Your task to perform on an android device: Play the latest video from the Wall Street Journal Image 0: 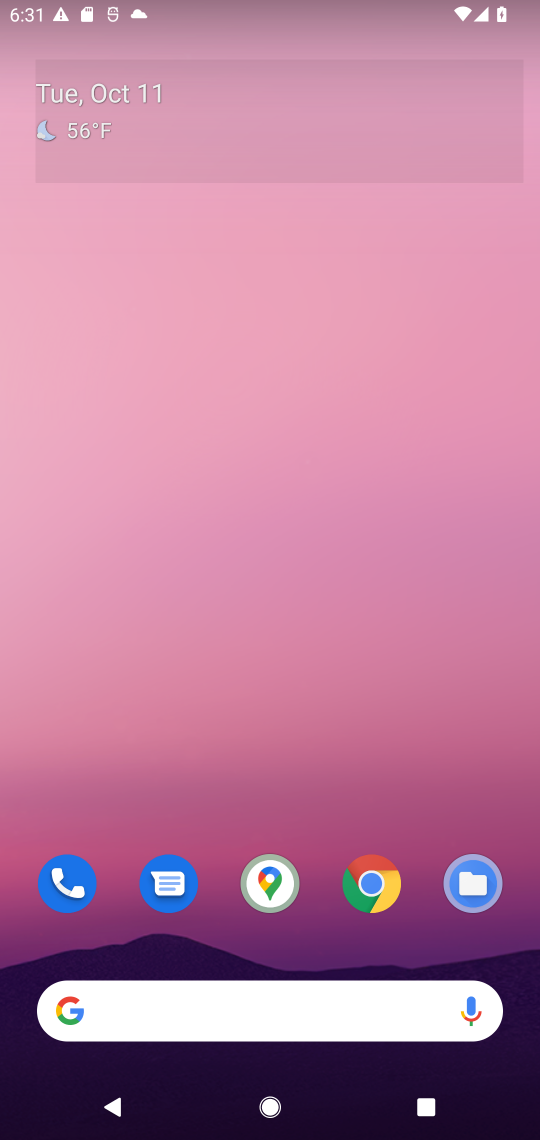
Step 0: drag from (322, 955) to (326, 11)
Your task to perform on an android device: Play the latest video from the Wall Street Journal Image 1: 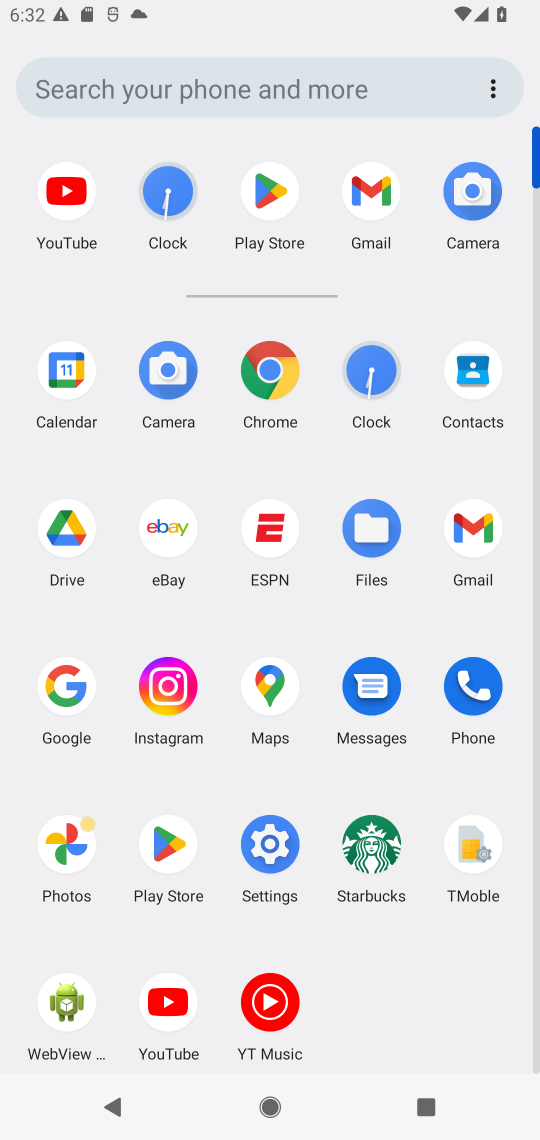
Step 1: click (158, 998)
Your task to perform on an android device: Play the latest video from the Wall Street Journal Image 2: 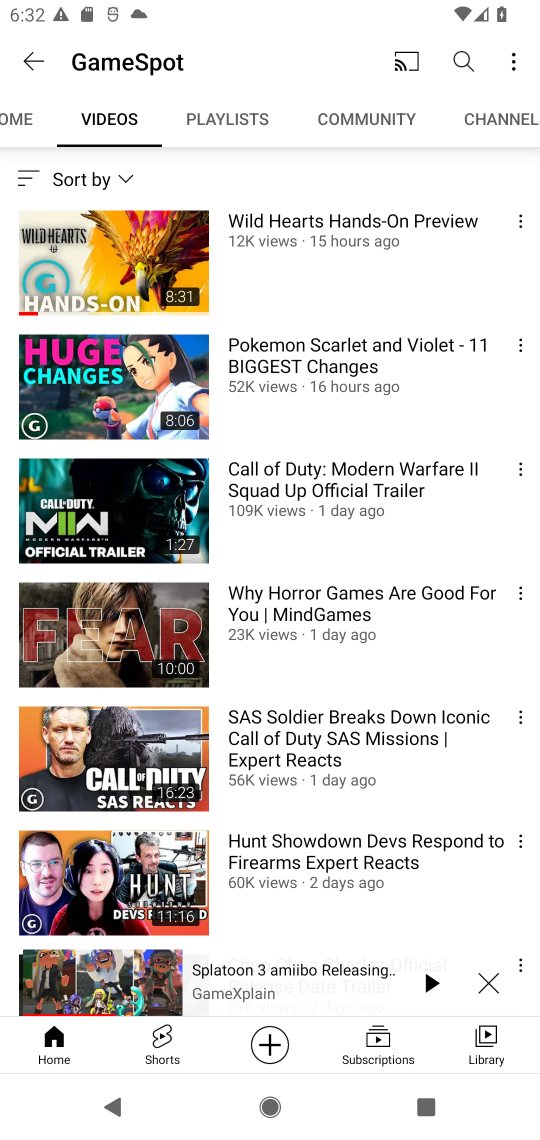
Step 2: click (306, 58)
Your task to perform on an android device: Play the latest video from the Wall Street Journal Image 3: 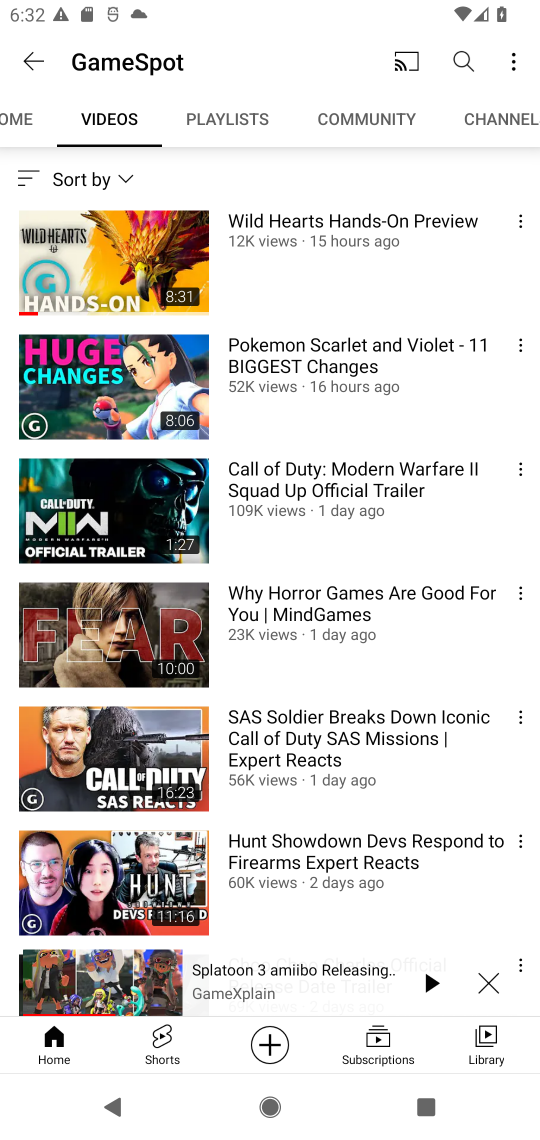
Step 3: click (260, 59)
Your task to perform on an android device: Play the latest video from the Wall Street Journal Image 4: 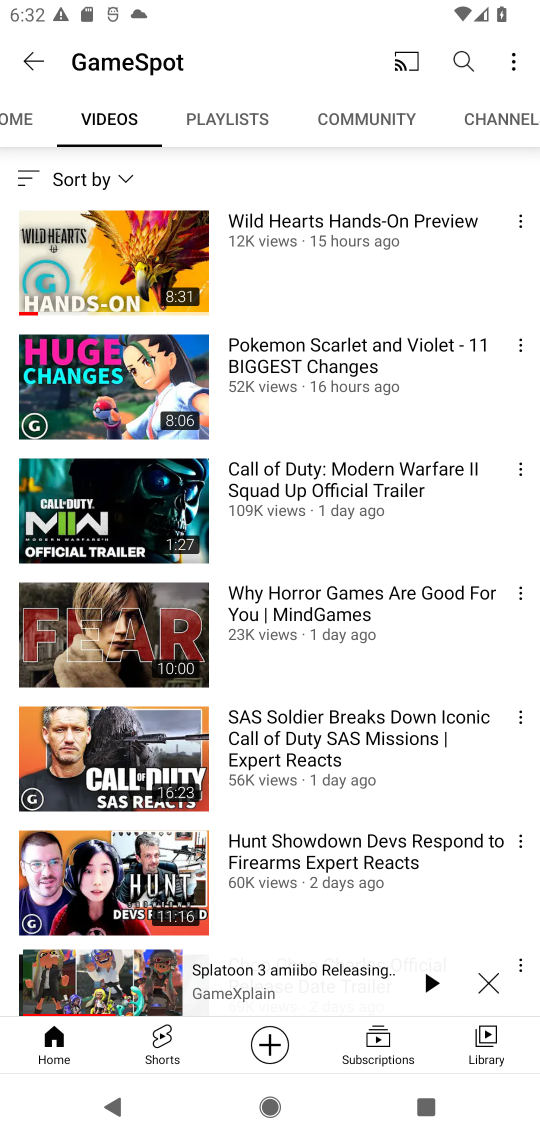
Step 4: press back button
Your task to perform on an android device: Play the latest video from the Wall Street Journal Image 5: 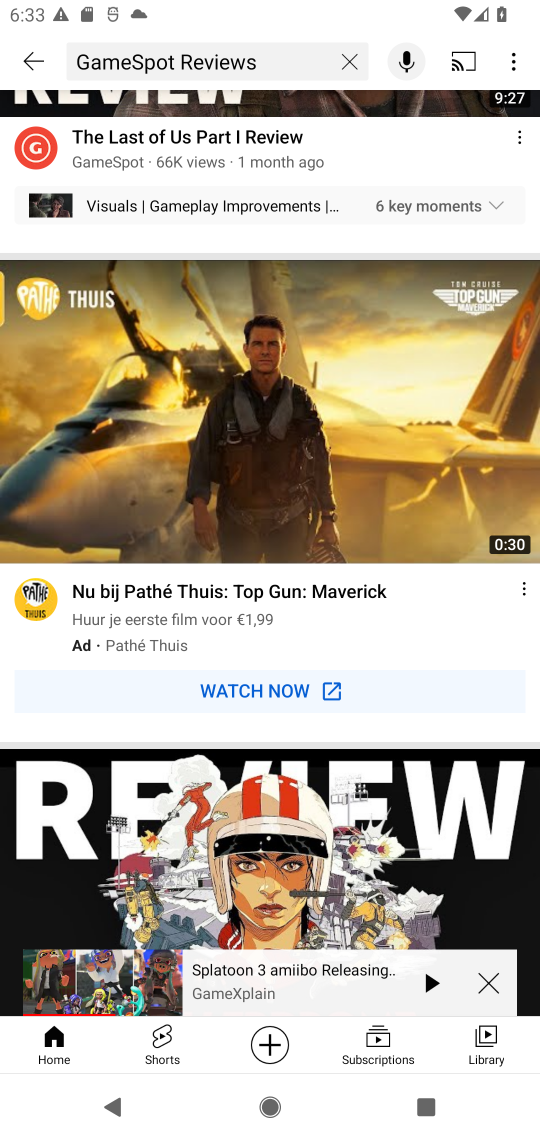
Step 5: click (350, 62)
Your task to perform on an android device: Play the latest video from the Wall Street Journal Image 6: 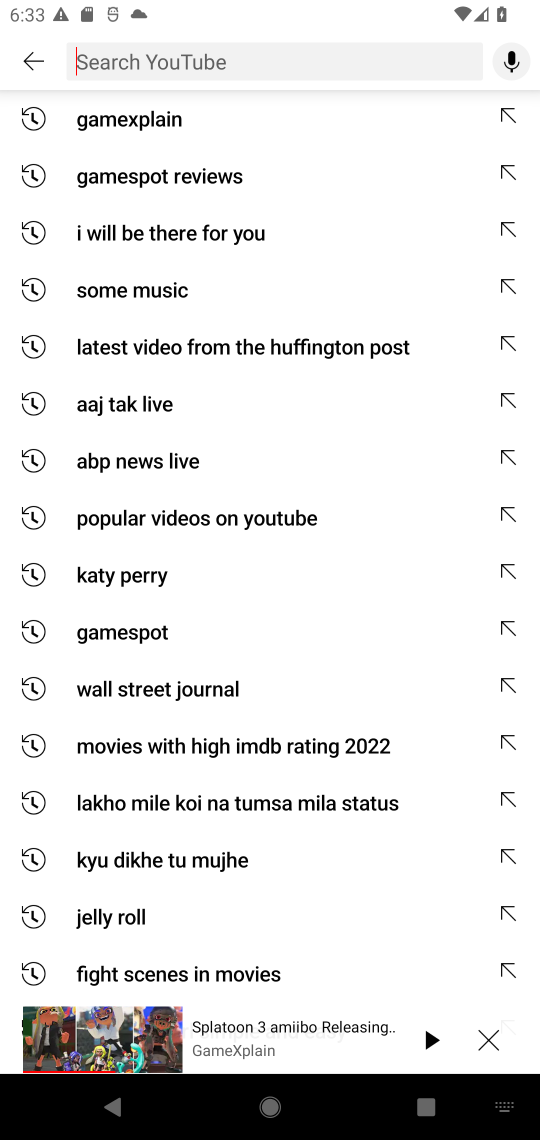
Step 6: type "Wall Street Journal"
Your task to perform on an android device: Play the latest video from the Wall Street Journal Image 7: 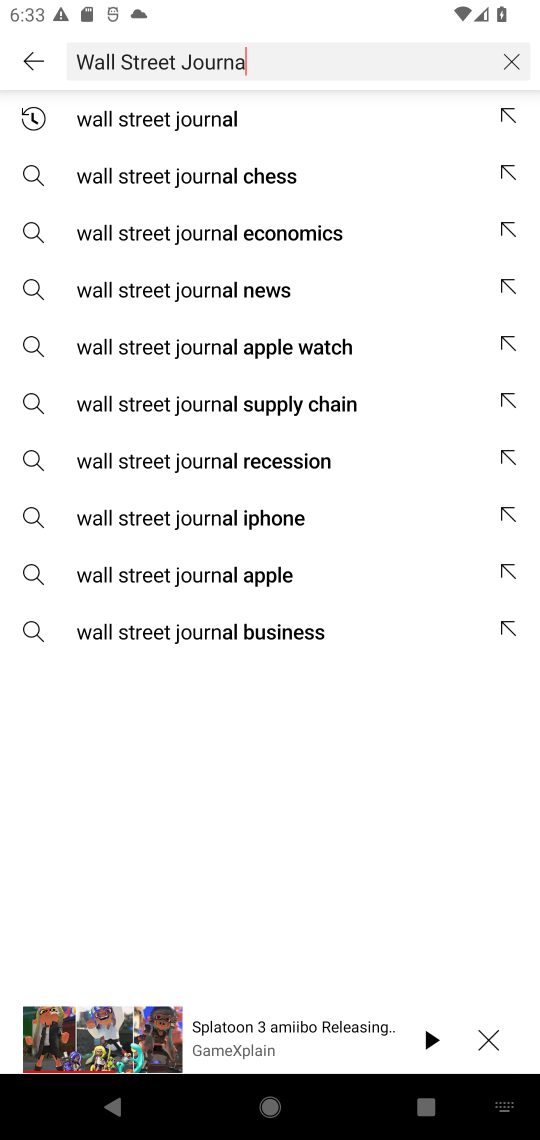
Step 7: press enter
Your task to perform on an android device: Play the latest video from the Wall Street Journal Image 8: 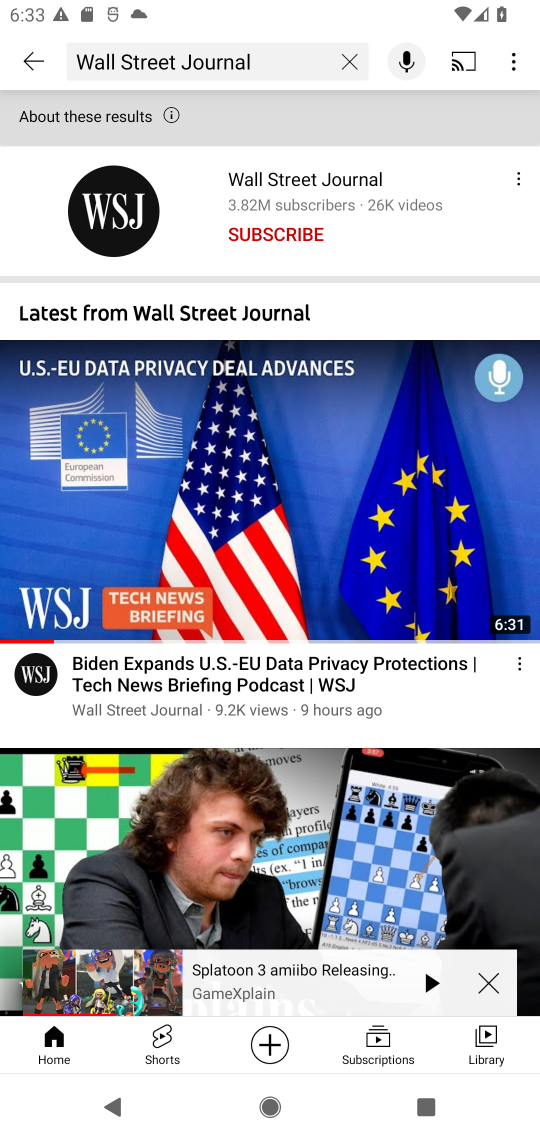
Step 8: click (295, 183)
Your task to perform on an android device: Play the latest video from the Wall Street Journal Image 9: 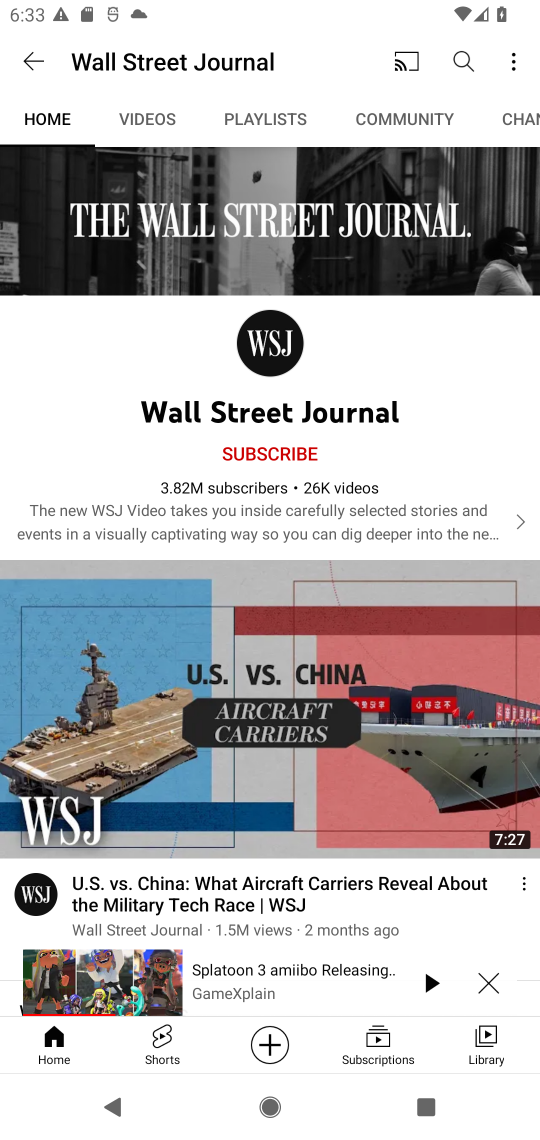
Step 9: click (168, 115)
Your task to perform on an android device: Play the latest video from the Wall Street Journal Image 10: 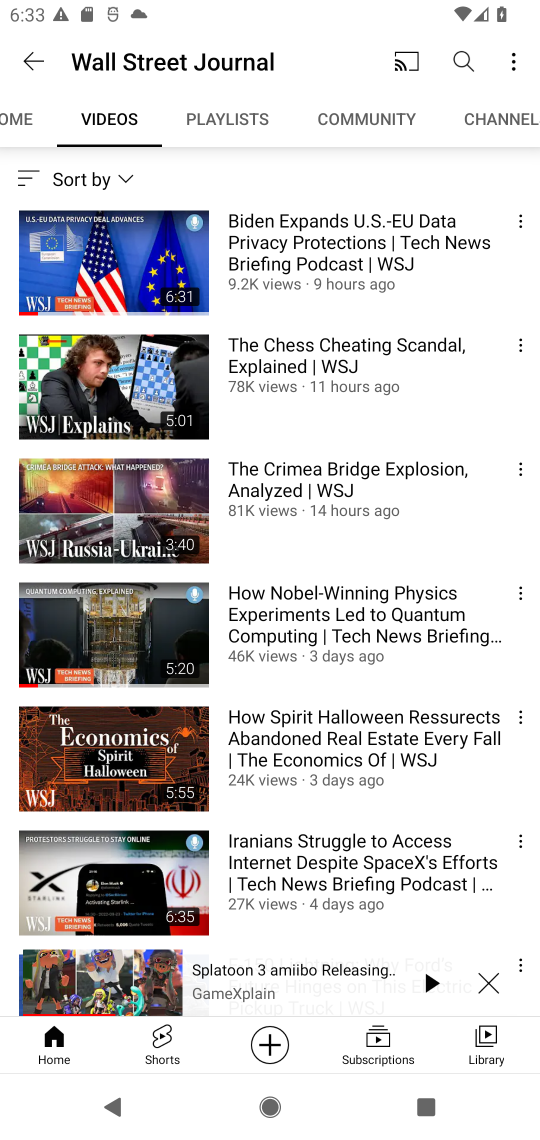
Step 10: click (94, 270)
Your task to perform on an android device: Play the latest video from the Wall Street Journal Image 11: 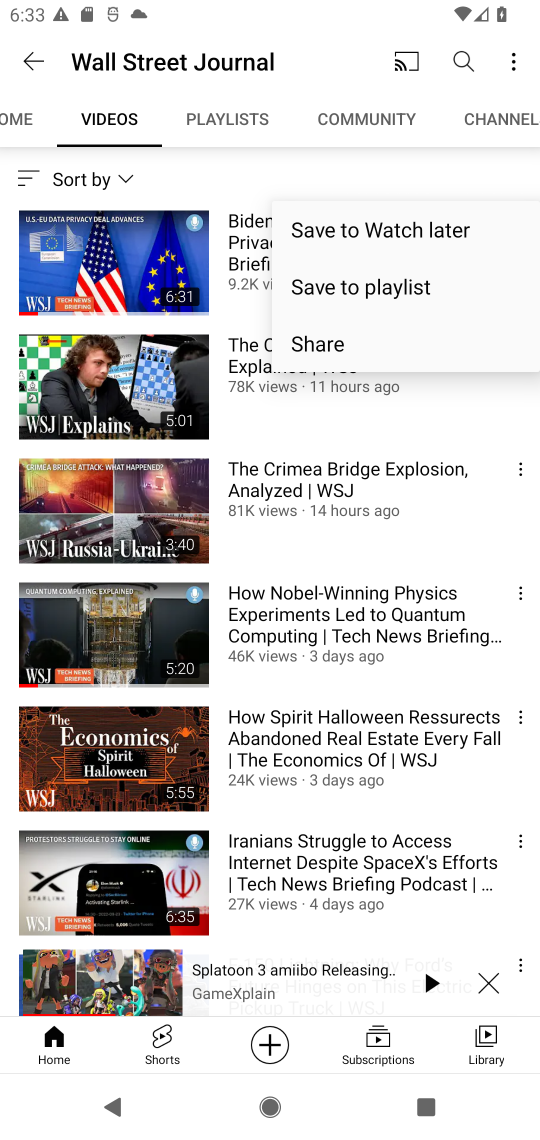
Step 11: click (38, 257)
Your task to perform on an android device: Play the latest video from the Wall Street Journal Image 12: 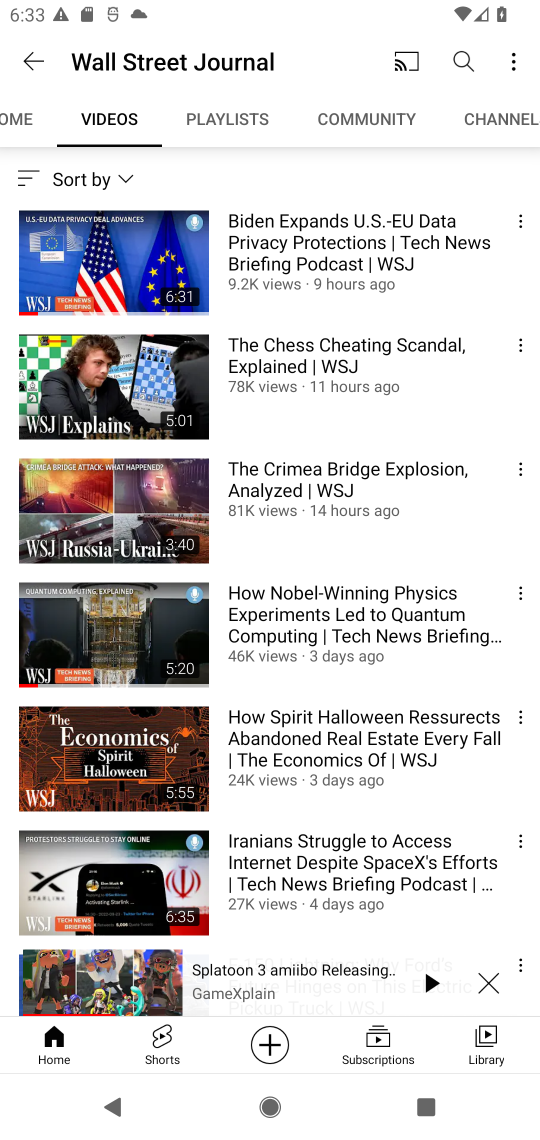
Step 12: click (100, 254)
Your task to perform on an android device: Play the latest video from the Wall Street Journal Image 13: 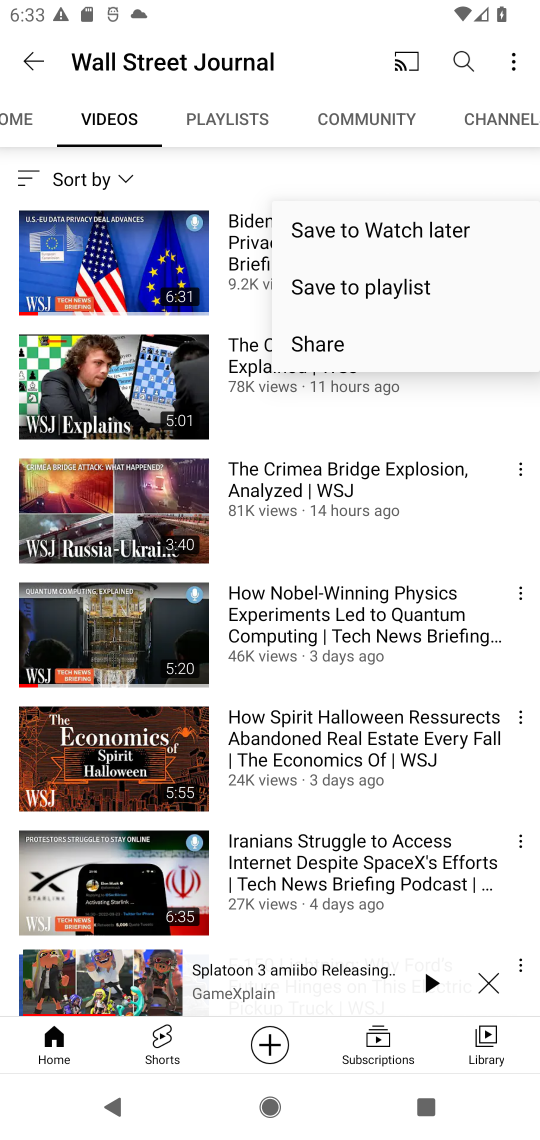
Step 13: click (205, 251)
Your task to perform on an android device: Play the latest video from the Wall Street Journal Image 14: 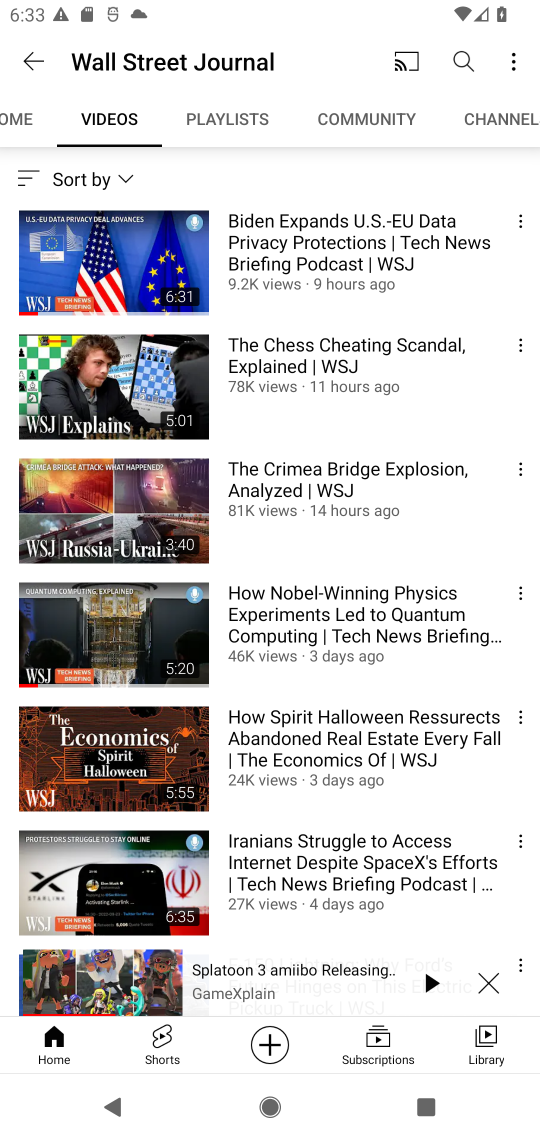
Step 14: click (336, 236)
Your task to perform on an android device: Play the latest video from the Wall Street Journal Image 15: 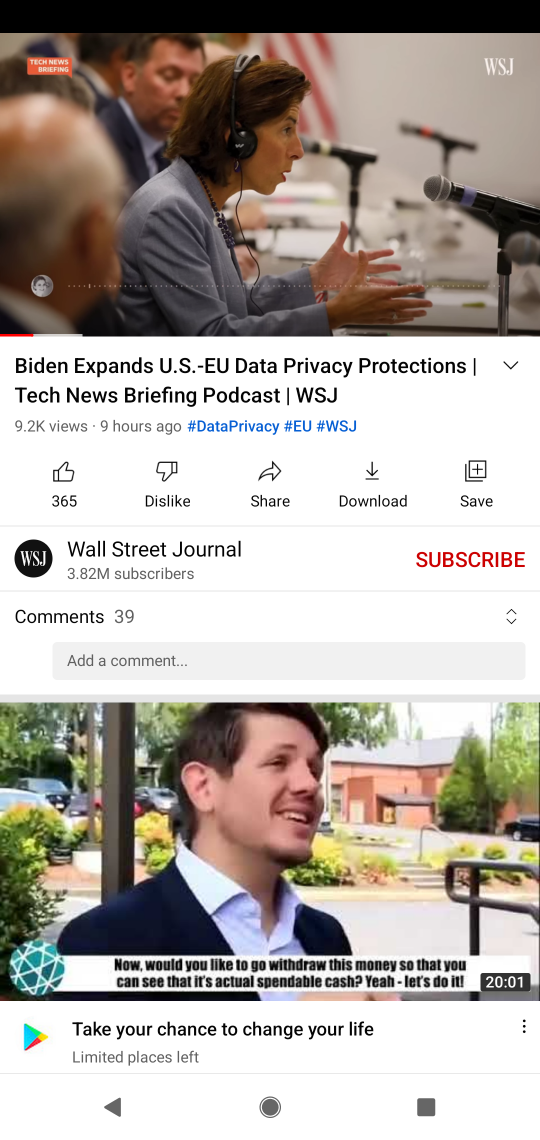
Step 15: task complete